Your task to perform on an android device: set the stopwatch Image 0: 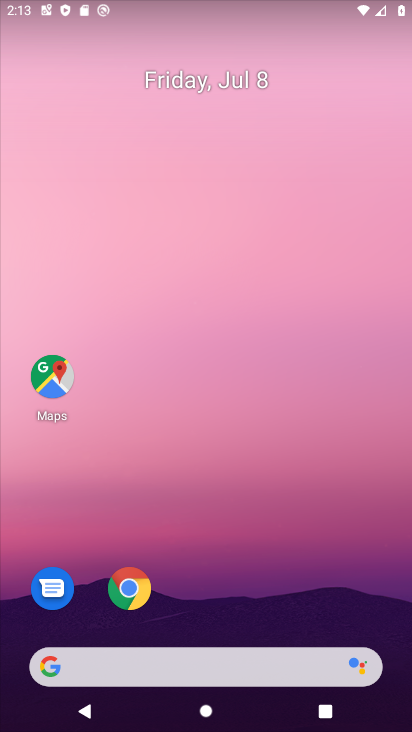
Step 0: press home button
Your task to perform on an android device: set the stopwatch Image 1: 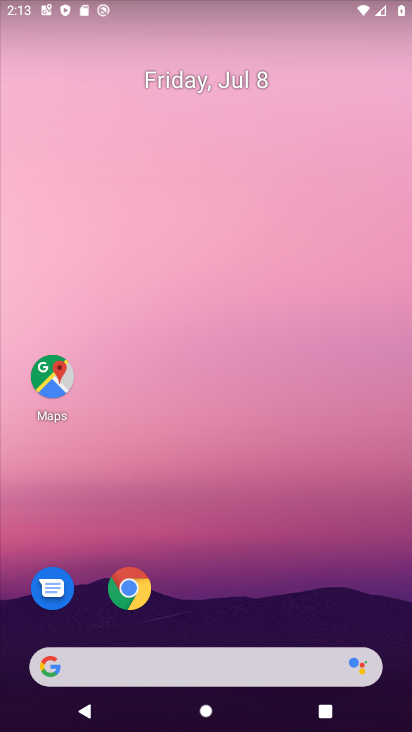
Step 1: drag from (251, 614) to (319, 149)
Your task to perform on an android device: set the stopwatch Image 2: 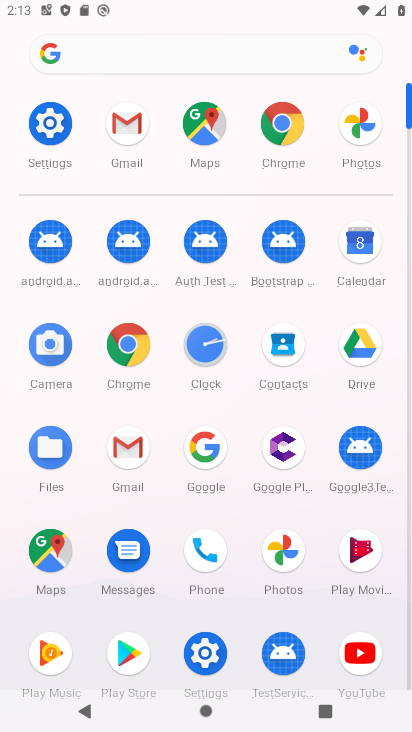
Step 2: click (202, 353)
Your task to perform on an android device: set the stopwatch Image 3: 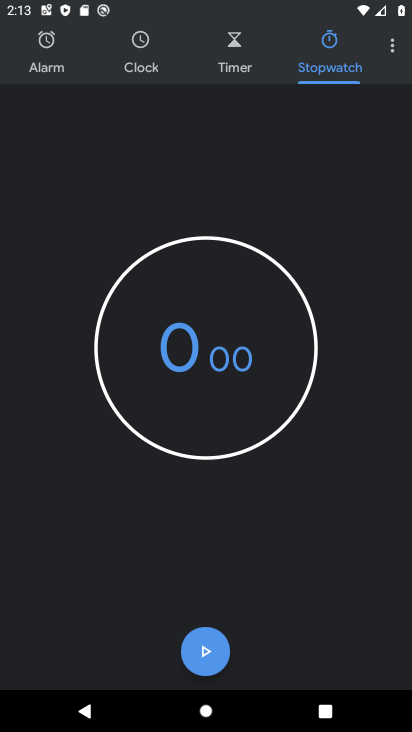
Step 3: click (190, 339)
Your task to perform on an android device: set the stopwatch Image 4: 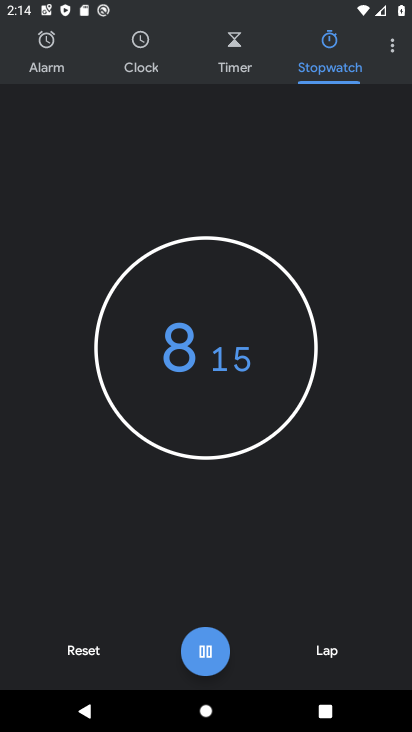
Step 4: task complete